Your task to perform on an android device: turn on location history Image 0: 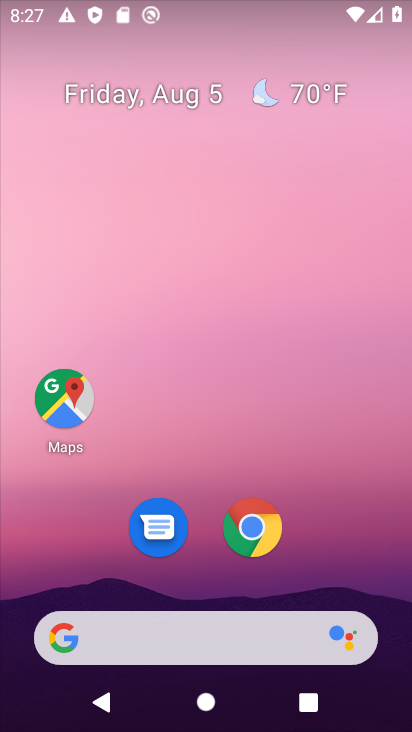
Step 0: drag from (235, 70) to (202, 7)
Your task to perform on an android device: turn on location history Image 1: 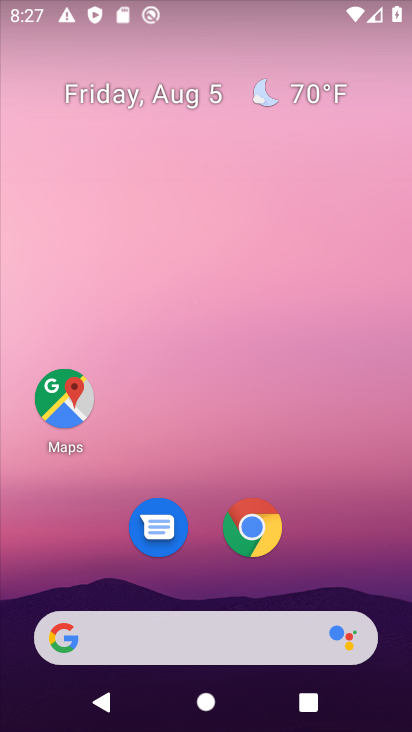
Step 1: drag from (182, 154) to (160, 1)
Your task to perform on an android device: turn on location history Image 2: 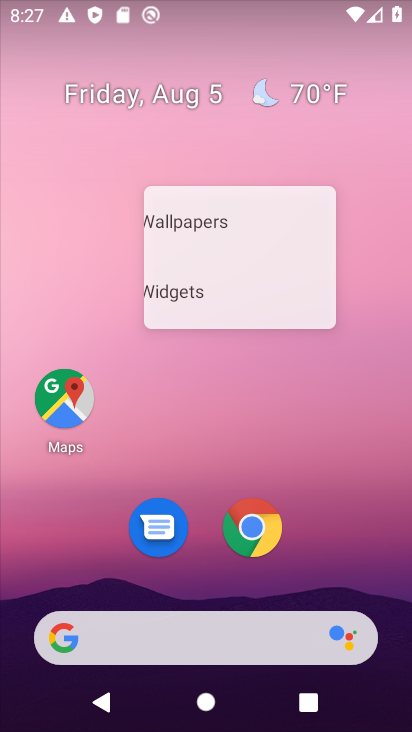
Step 2: drag from (203, 670) to (167, 11)
Your task to perform on an android device: turn on location history Image 3: 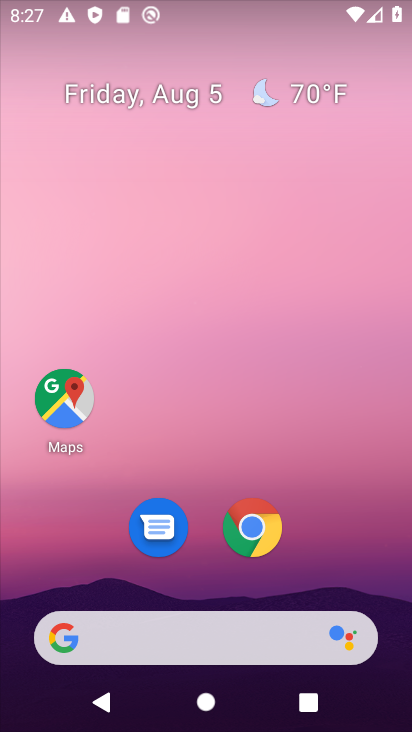
Step 3: drag from (186, 608) to (130, 1)
Your task to perform on an android device: turn on location history Image 4: 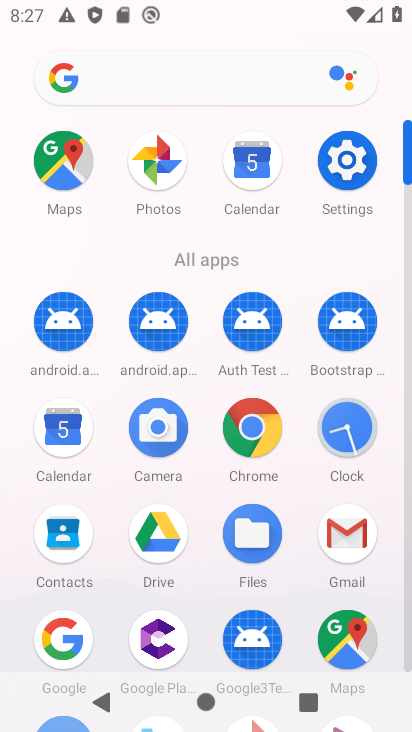
Step 4: click (358, 186)
Your task to perform on an android device: turn on location history Image 5: 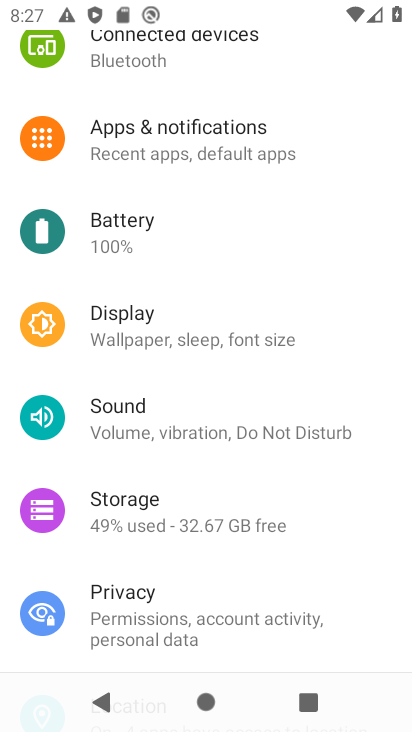
Step 5: drag from (132, 226) to (138, 68)
Your task to perform on an android device: turn on location history Image 6: 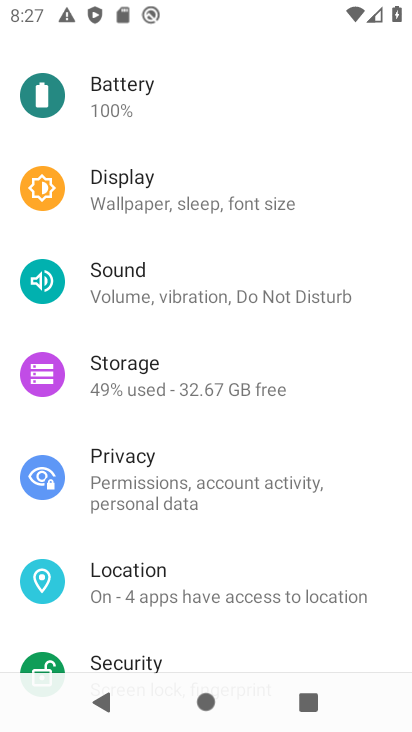
Step 6: click (123, 595)
Your task to perform on an android device: turn on location history Image 7: 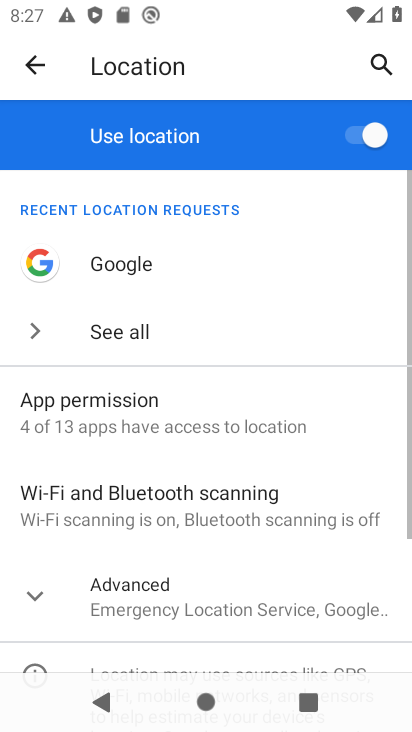
Step 7: drag from (148, 453) to (130, 205)
Your task to perform on an android device: turn on location history Image 8: 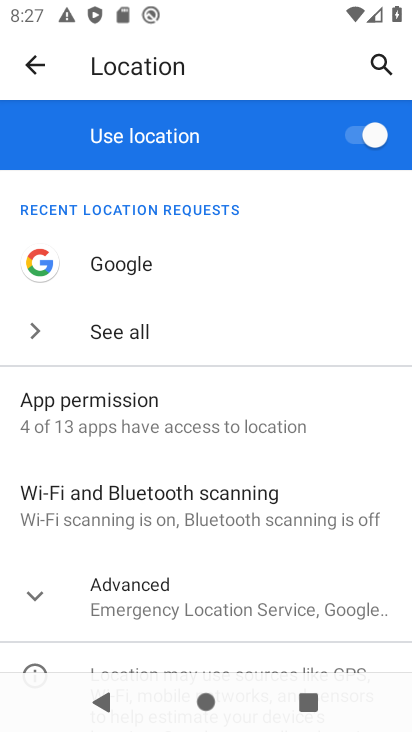
Step 8: click (186, 599)
Your task to perform on an android device: turn on location history Image 9: 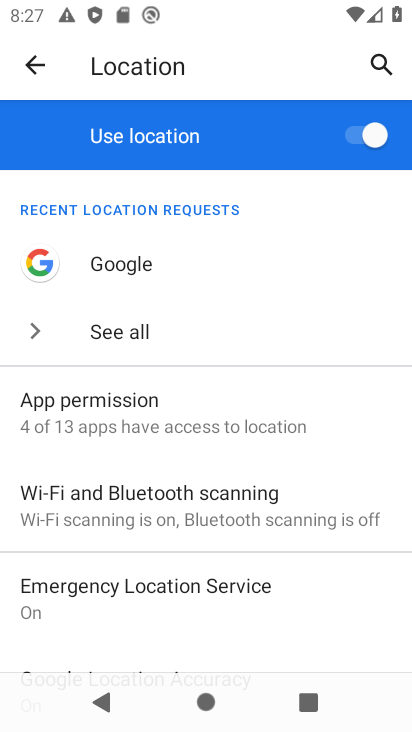
Step 9: drag from (297, 489) to (247, 0)
Your task to perform on an android device: turn on location history Image 10: 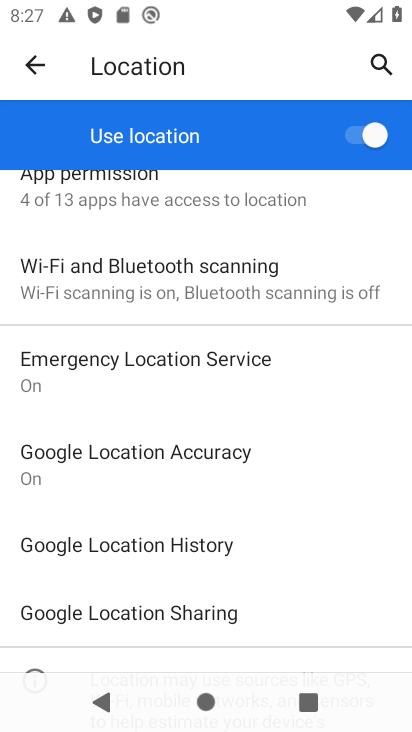
Step 10: click (172, 542)
Your task to perform on an android device: turn on location history Image 11: 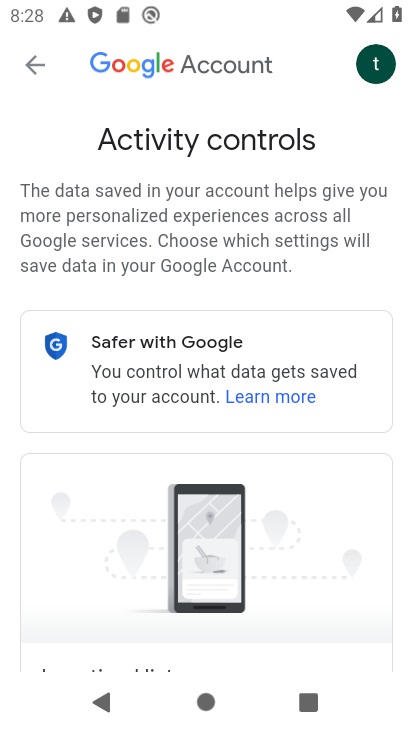
Step 11: task complete